Your task to perform on an android device: Search for "bose quietcomfort 35" on amazon.com, select the first entry, and add it to the cart. Image 0: 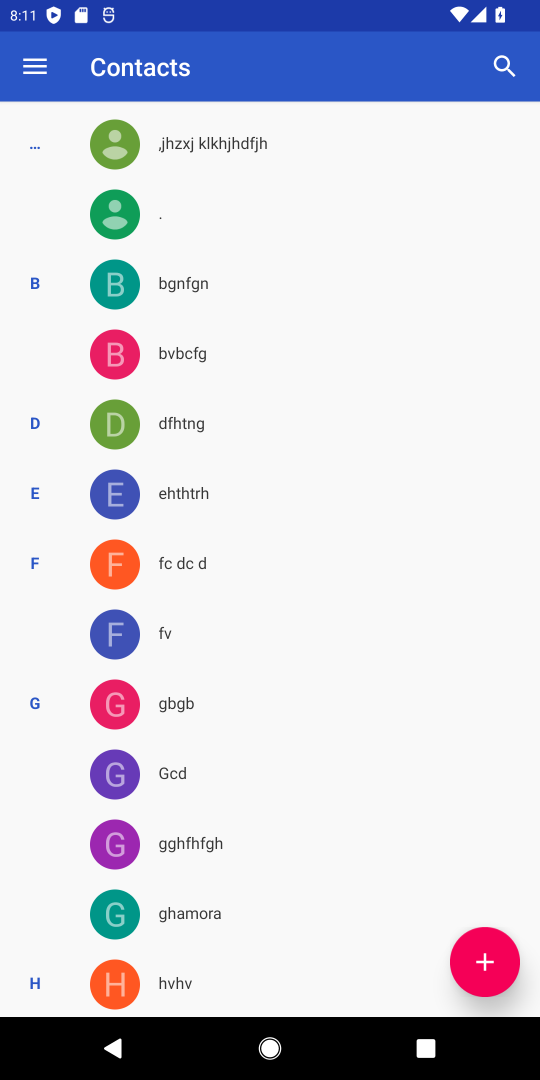
Step 0: press home button
Your task to perform on an android device: Search for "bose quietcomfort 35" on amazon.com, select the first entry, and add it to the cart. Image 1: 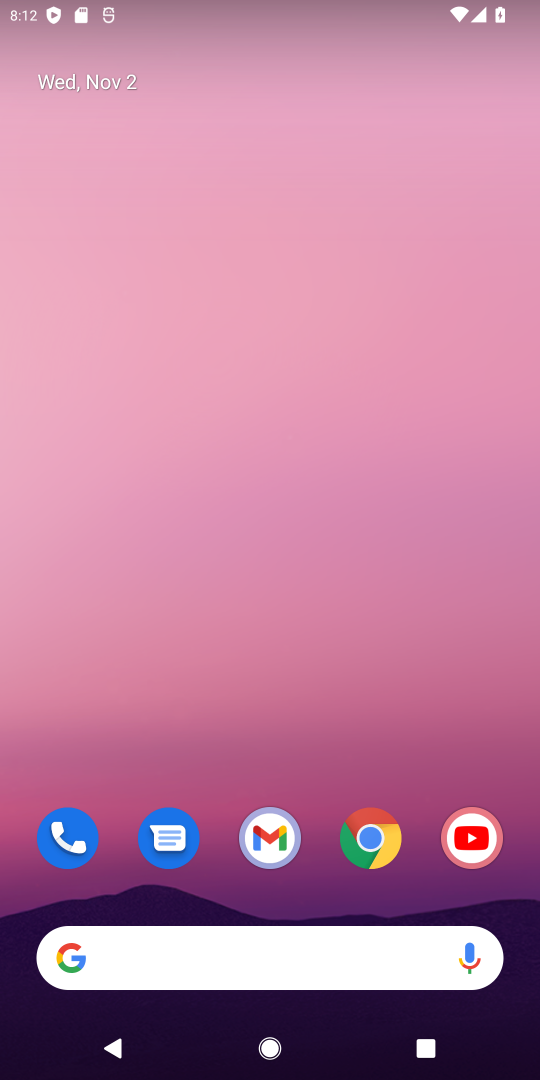
Step 1: click (368, 862)
Your task to perform on an android device: Search for "bose quietcomfort 35" on amazon.com, select the first entry, and add it to the cart. Image 2: 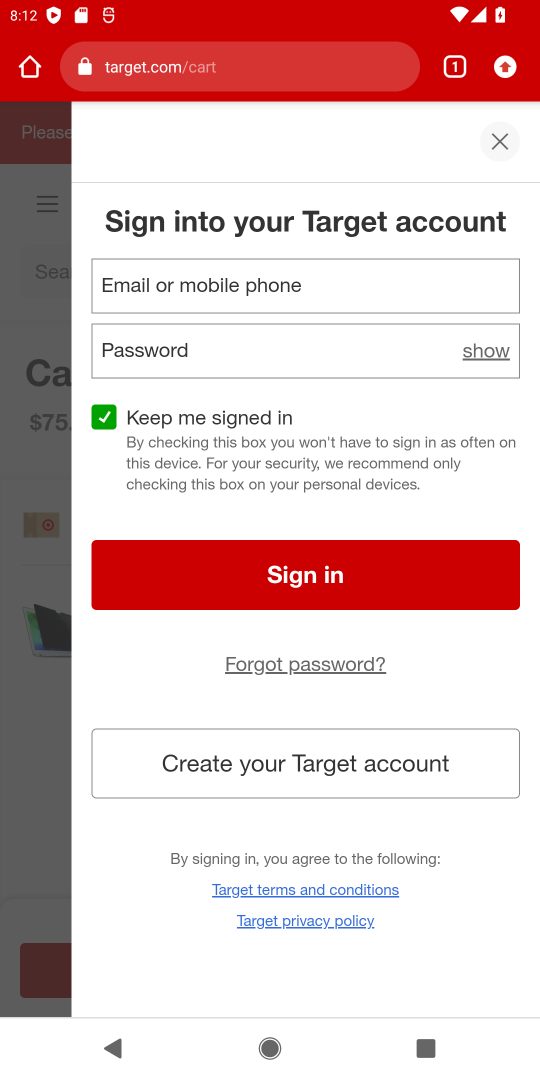
Step 2: click (311, 77)
Your task to perform on an android device: Search for "bose quietcomfort 35" on amazon.com, select the first entry, and add it to the cart. Image 3: 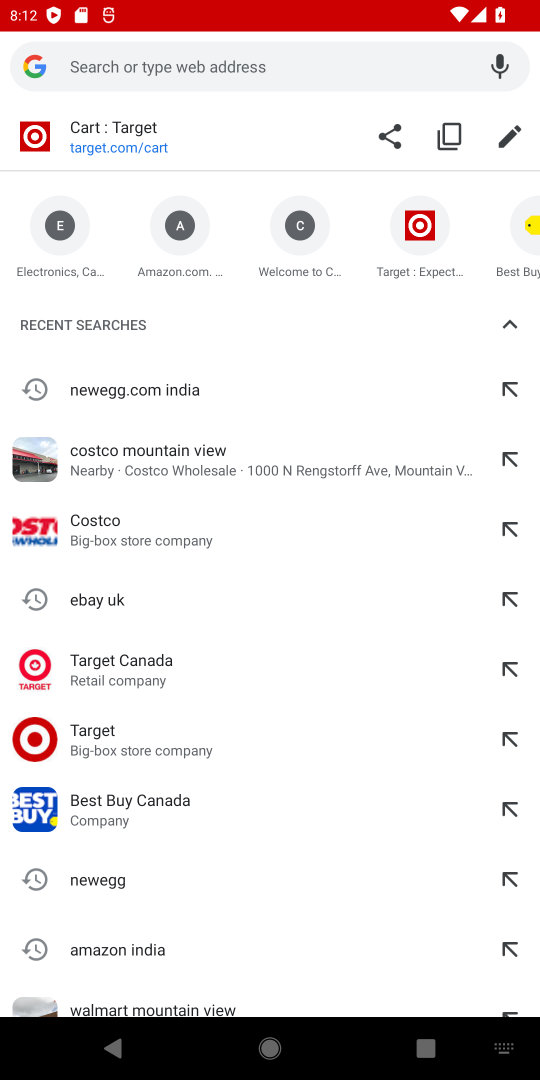
Step 3: type "amazon.com"
Your task to perform on an android device: Search for "bose quietcomfort 35" on amazon.com, select the first entry, and add it to the cart. Image 4: 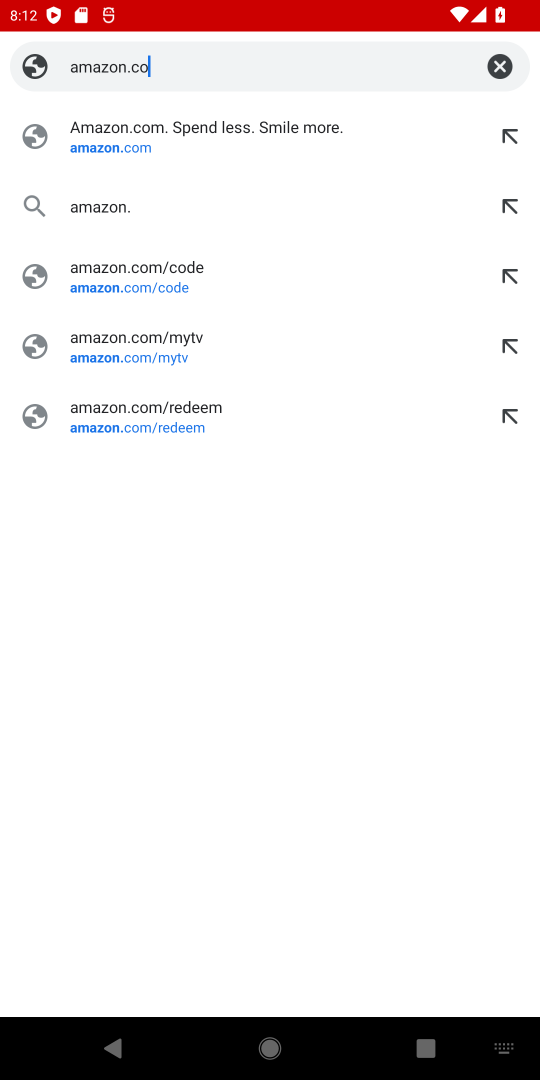
Step 4: type ""
Your task to perform on an android device: Search for "bose quietcomfort 35" on amazon.com, select the first entry, and add it to the cart. Image 5: 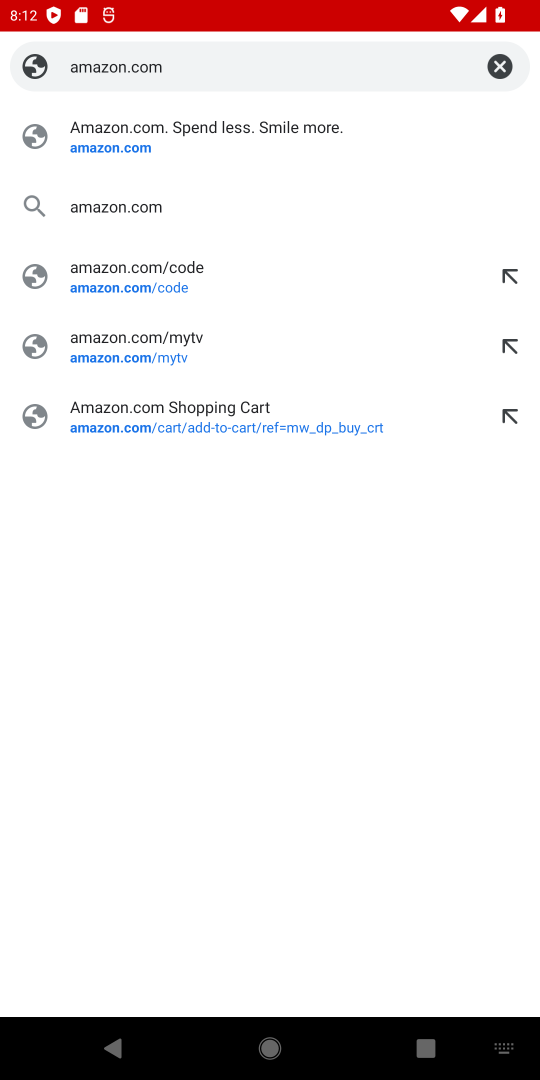
Step 5: press enter
Your task to perform on an android device: Search for "bose quietcomfort 35" on amazon.com, select the first entry, and add it to the cart. Image 6: 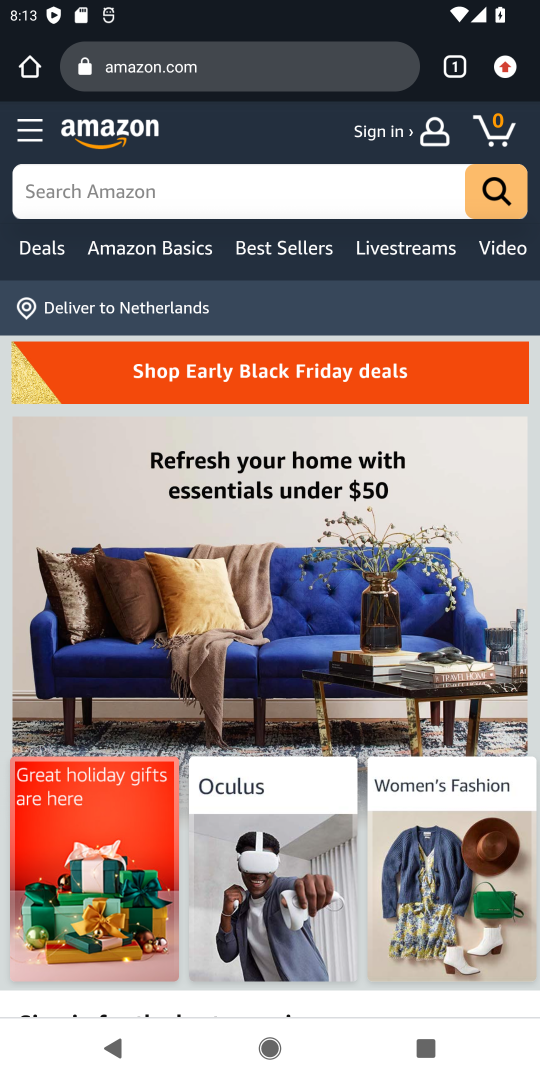
Step 6: click (201, 177)
Your task to perform on an android device: Search for "bose quietcomfort 35" on amazon.com, select the first entry, and add it to the cart. Image 7: 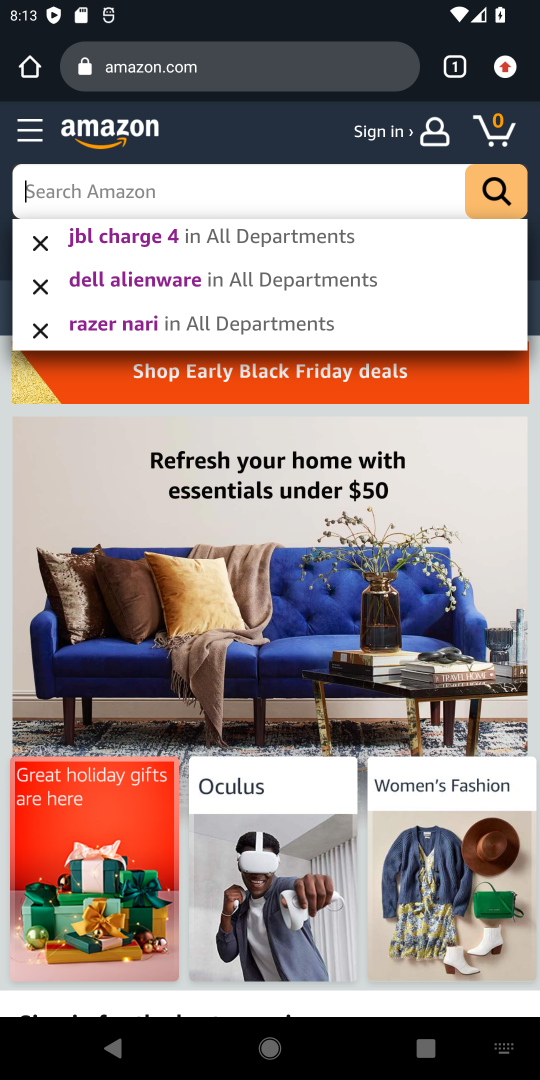
Step 7: type "bose quietcomfort 35"
Your task to perform on an android device: Search for "bose quietcomfort 35" on amazon.com, select the first entry, and add it to the cart. Image 8: 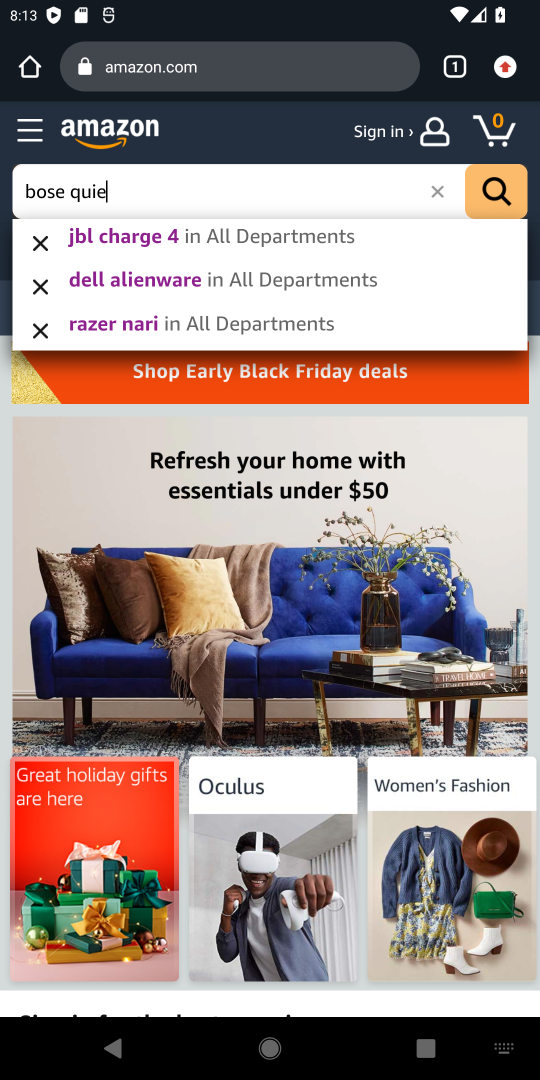
Step 8: type ""
Your task to perform on an android device: Search for "bose quietcomfort 35" on amazon.com, select the first entry, and add it to the cart. Image 9: 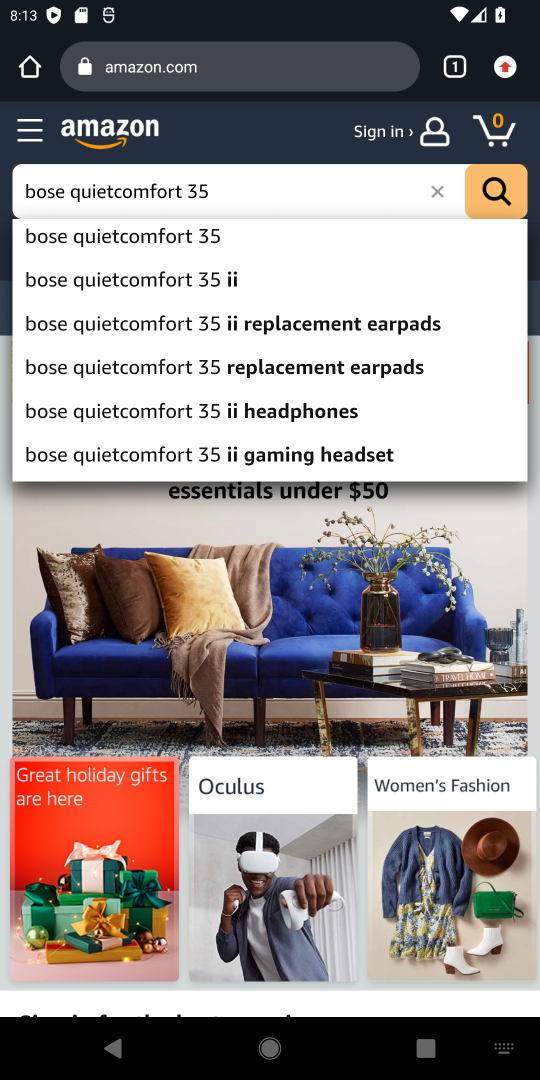
Step 9: press enter
Your task to perform on an android device: Search for "bose quietcomfort 35" on amazon.com, select the first entry, and add it to the cart. Image 10: 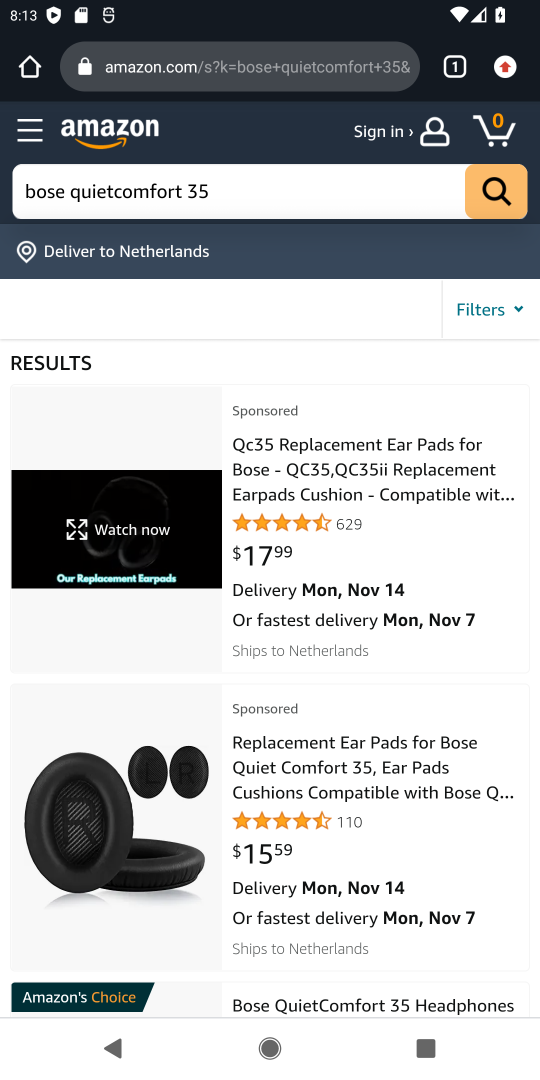
Step 10: drag from (382, 775) to (377, 393)
Your task to perform on an android device: Search for "bose quietcomfort 35" on amazon.com, select the first entry, and add it to the cart. Image 11: 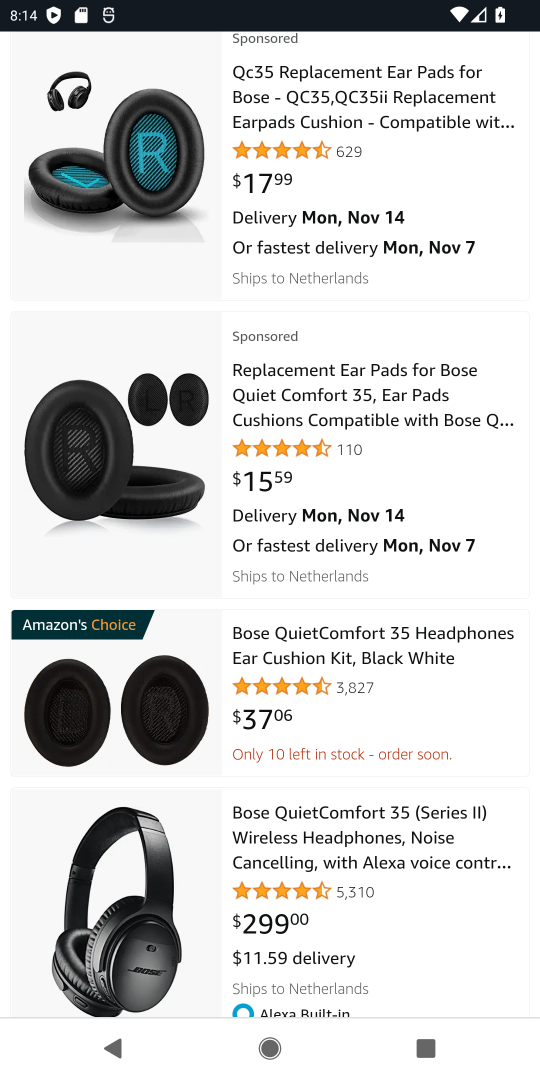
Step 11: drag from (412, 726) to (433, 468)
Your task to perform on an android device: Search for "bose quietcomfort 35" on amazon.com, select the first entry, and add it to the cart. Image 12: 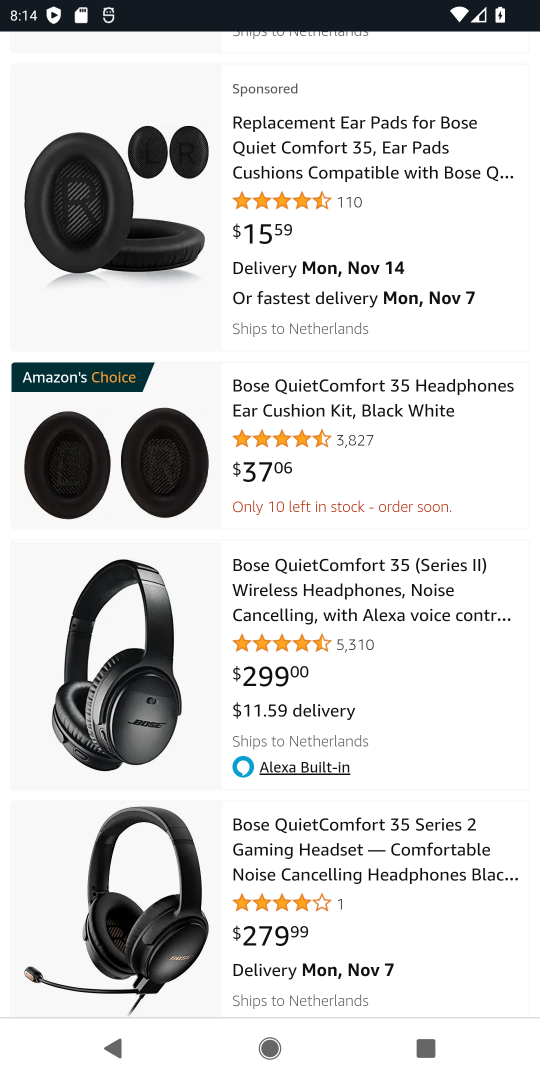
Step 12: click (352, 446)
Your task to perform on an android device: Search for "bose quietcomfort 35" on amazon.com, select the first entry, and add it to the cart. Image 13: 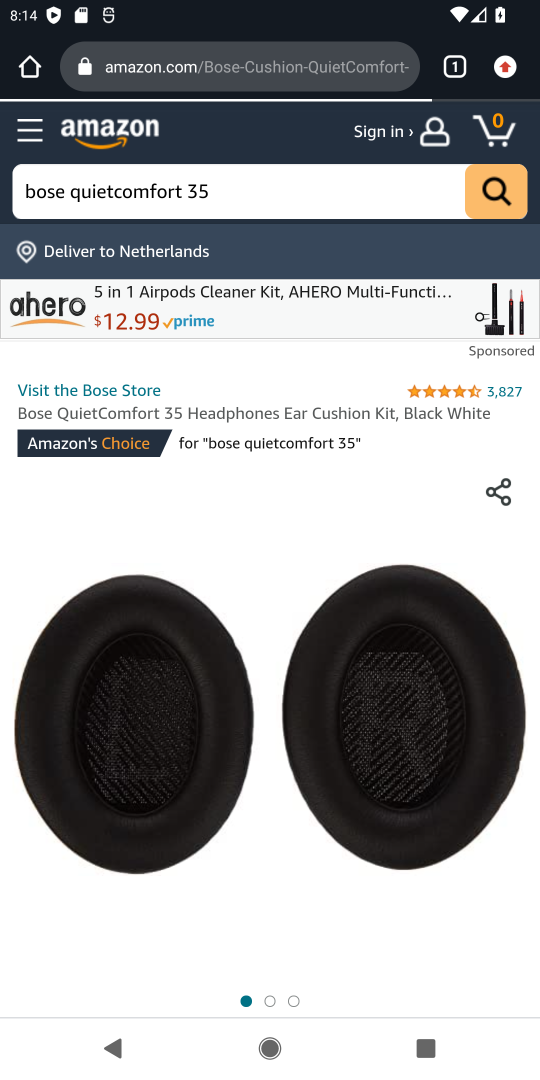
Step 13: drag from (482, 901) to (513, 840)
Your task to perform on an android device: Search for "bose quietcomfort 35" on amazon.com, select the first entry, and add it to the cart. Image 14: 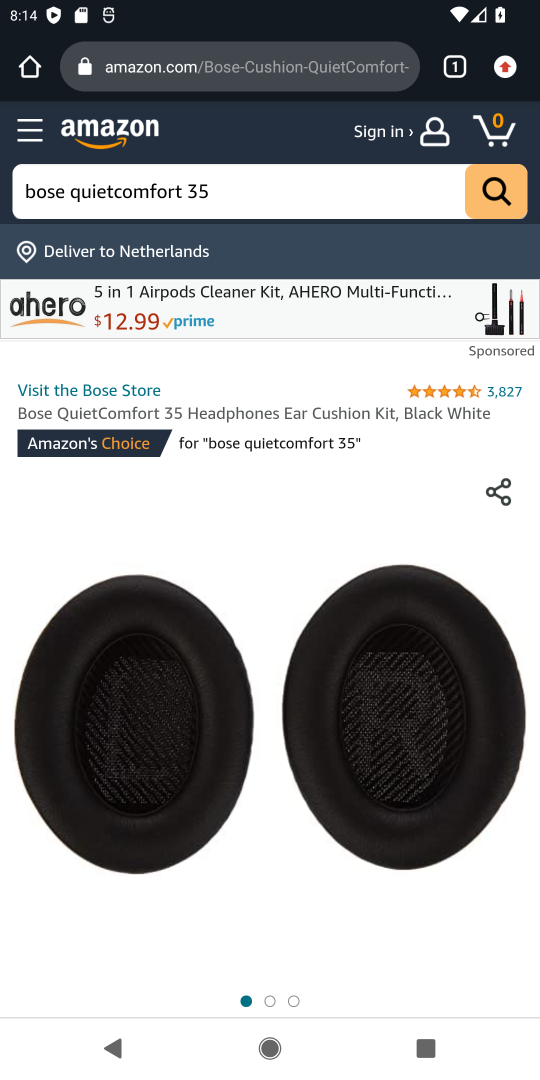
Step 14: press back button
Your task to perform on an android device: Search for "bose quietcomfort 35" on amazon.com, select the first entry, and add it to the cart. Image 15: 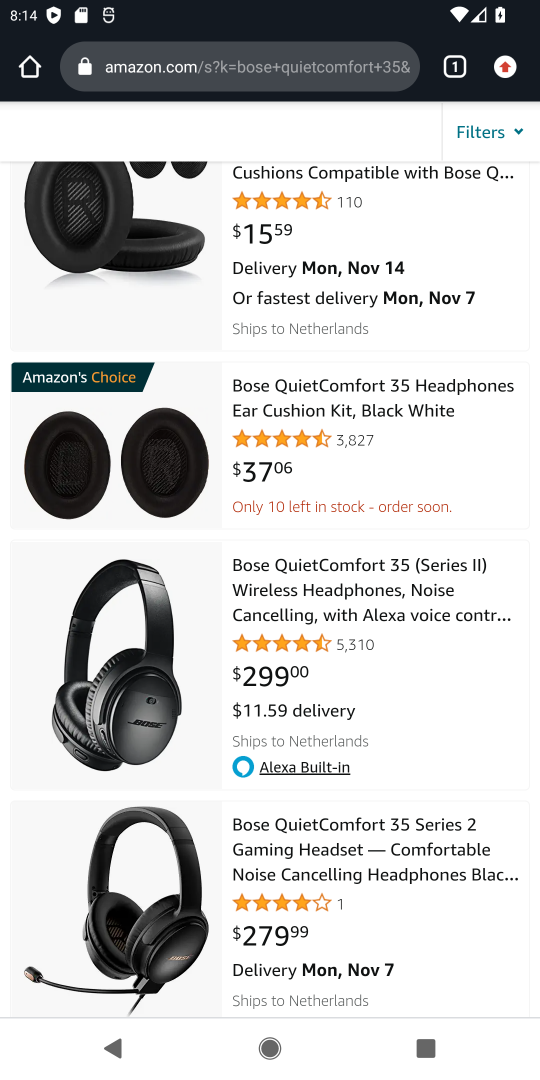
Step 15: click (377, 610)
Your task to perform on an android device: Search for "bose quietcomfort 35" on amazon.com, select the first entry, and add it to the cart. Image 16: 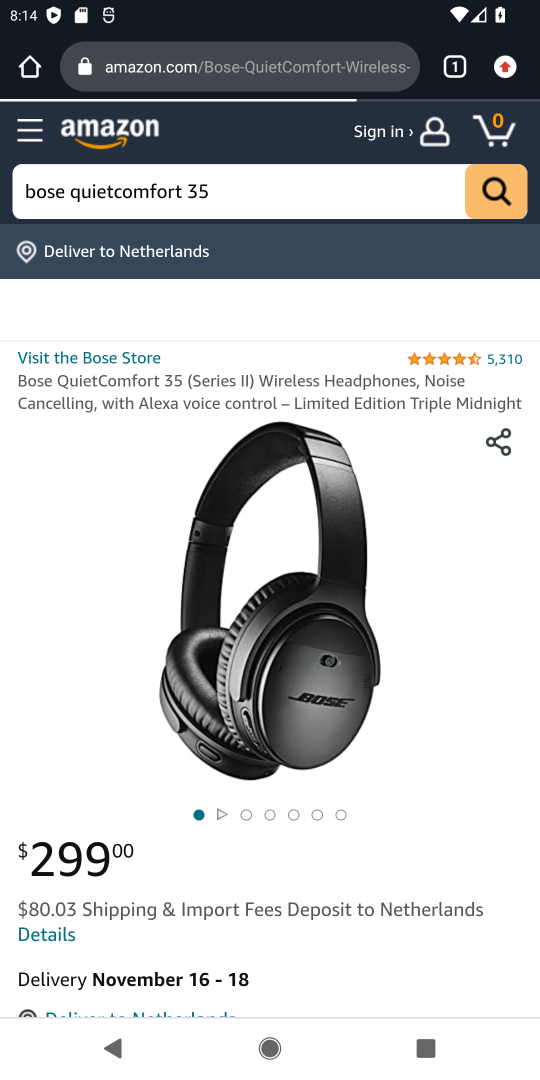
Step 16: drag from (427, 967) to (443, 460)
Your task to perform on an android device: Search for "bose quietcomfort 35" on amazon.com, select the first entry, and add it to the cart. Image 17: 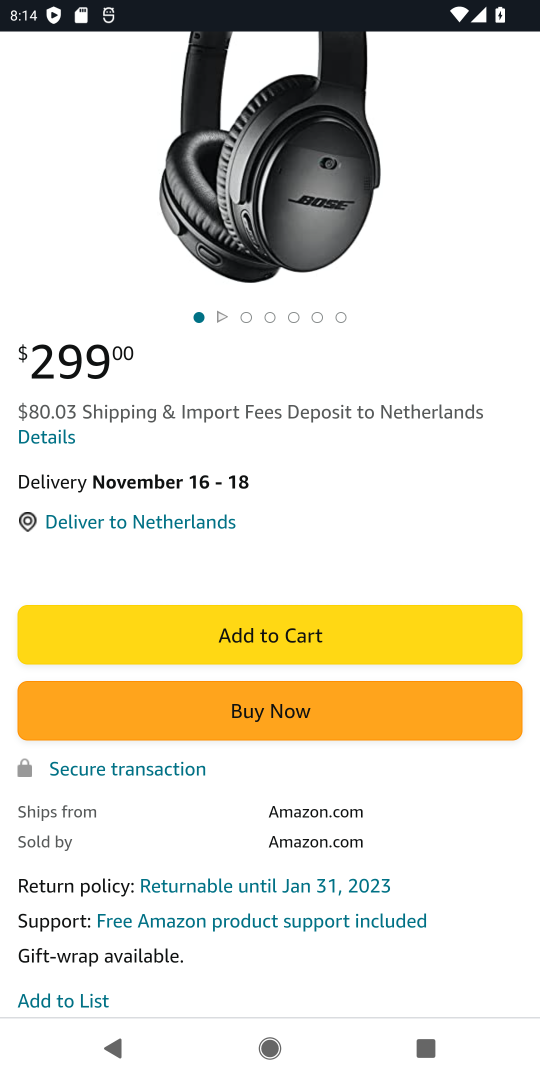
Step 17: click (384, 629)
Your task to perform on an android device: Search for "bose quietcomfort 35" on amazon.com, select the first entry, and add it to the cart. Image 18: 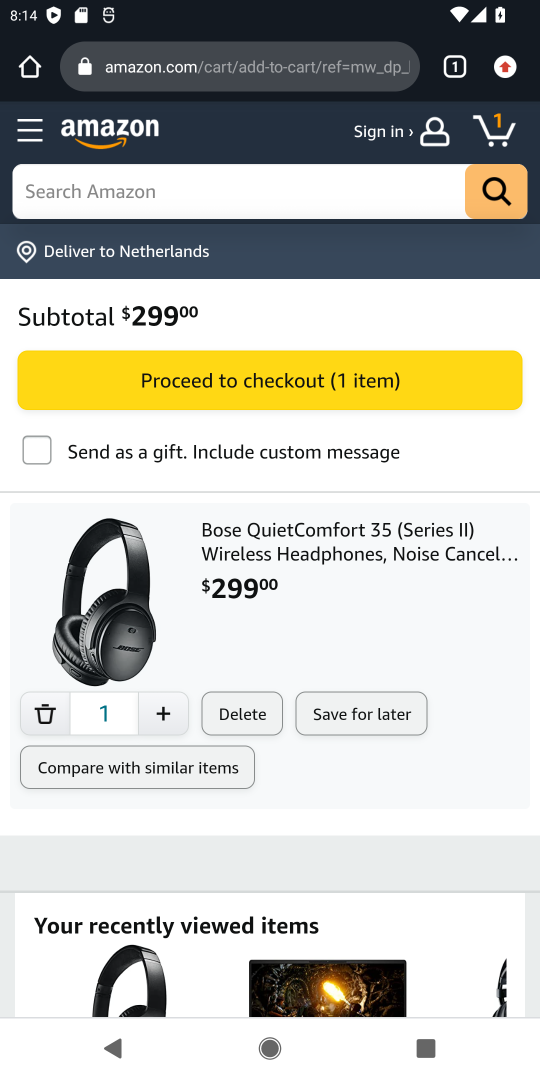
Step 18: click (303, 391)
Your task to perform on an android device: Search for "bose quietcomfort 35" on amazon.com, select the first entry, and add it to the cart. Image 19: 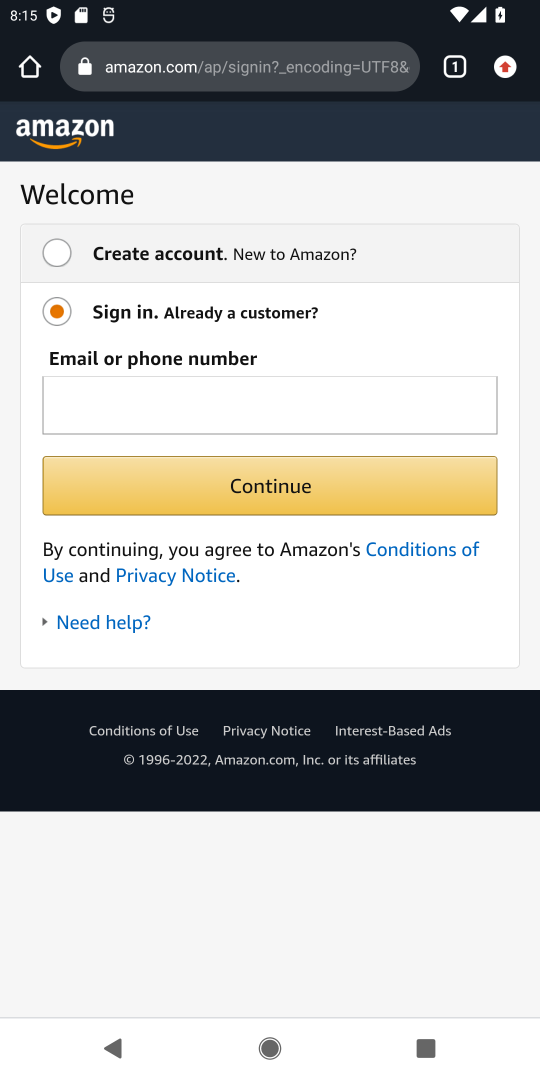
Step 19: task complete